Your task to perform on an android device: Go to location settings Image 0: 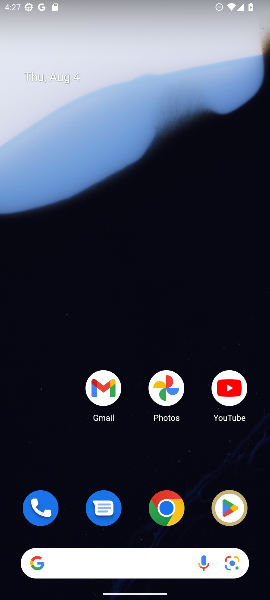
Step 0: drag from (136, 450) to (191, 173)
Your task to perform on an android device: Go to location settings Image 1: 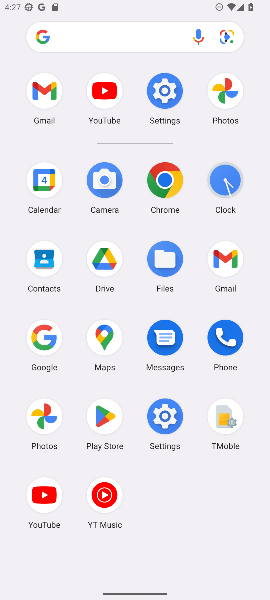
Step 1: click (163, 412)
Your task to perform on an android device: Go to location settings Image 2: 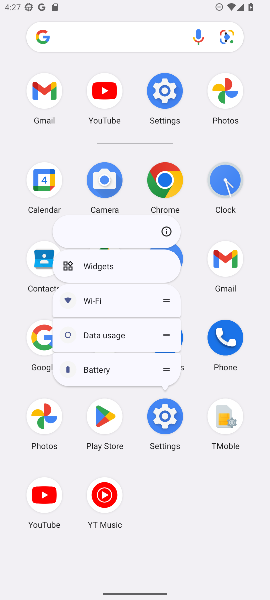
Step 2: click (165, 223)
Your task to perform on an android device: Go to location settings Image 3: 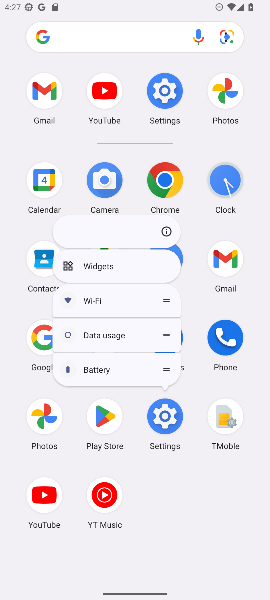
Step 3: click (162, 226)
Your task to perform on an android device: Go to location settings Image 4: 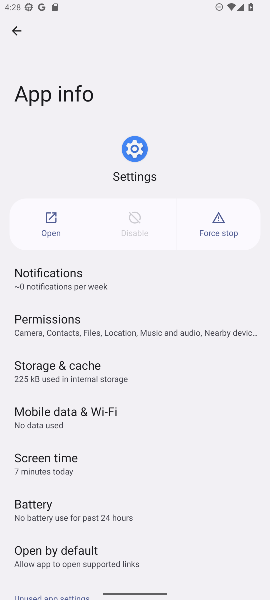
Step 4: click (53, 222)
Your task to perform on an android device: Go to location settings Image 5: 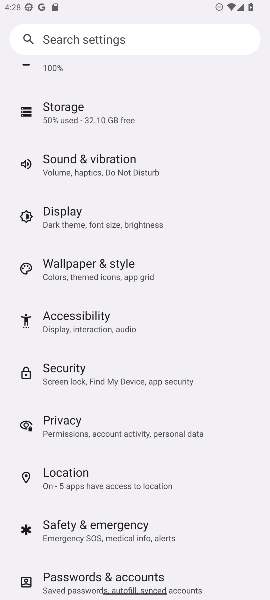
Step 5: click (95, 478)
Your task to perform on an android device: Go to location settings Image 6: 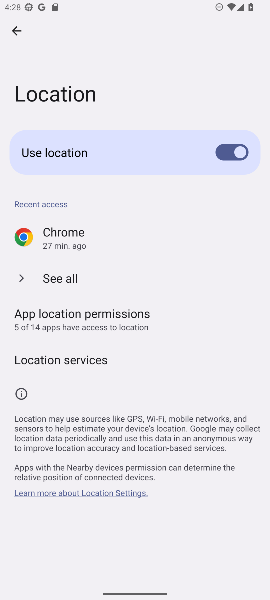
Step 6: task complete